Your task to perform on an android device: Open Google Chrome Image 0: 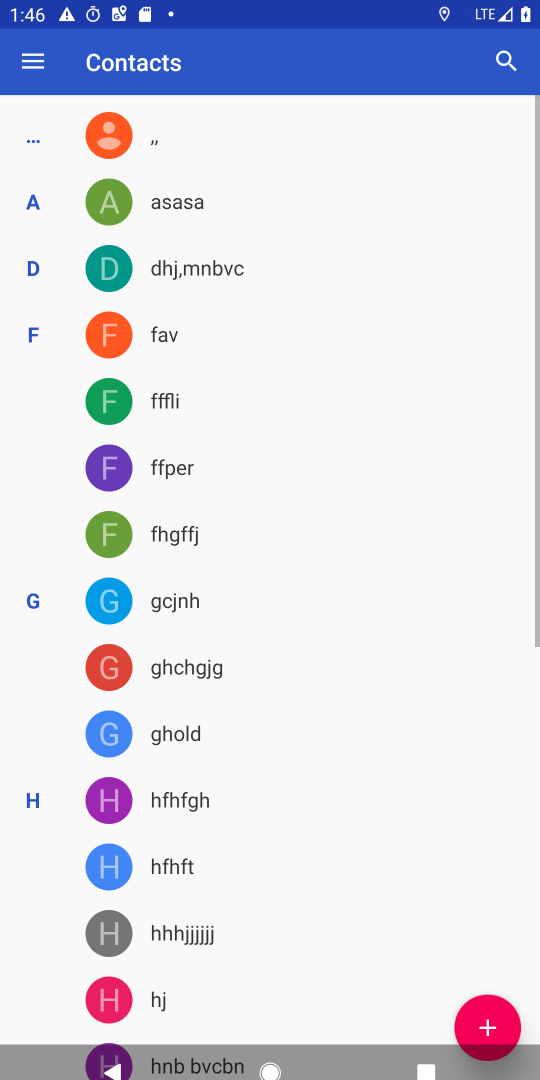
Step 0: press home button
Your task to perform on an android device: Open Google Chrome Image 1: 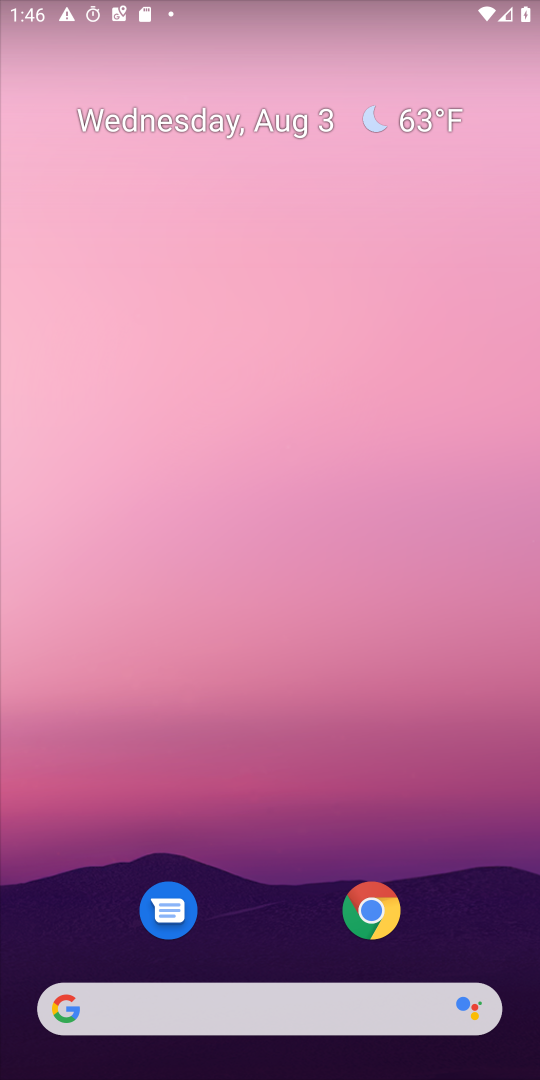
Step 1: drag from (328, 441) to (199, 353)
Your task to perform on an android device: Open Google Chrome Image 2: 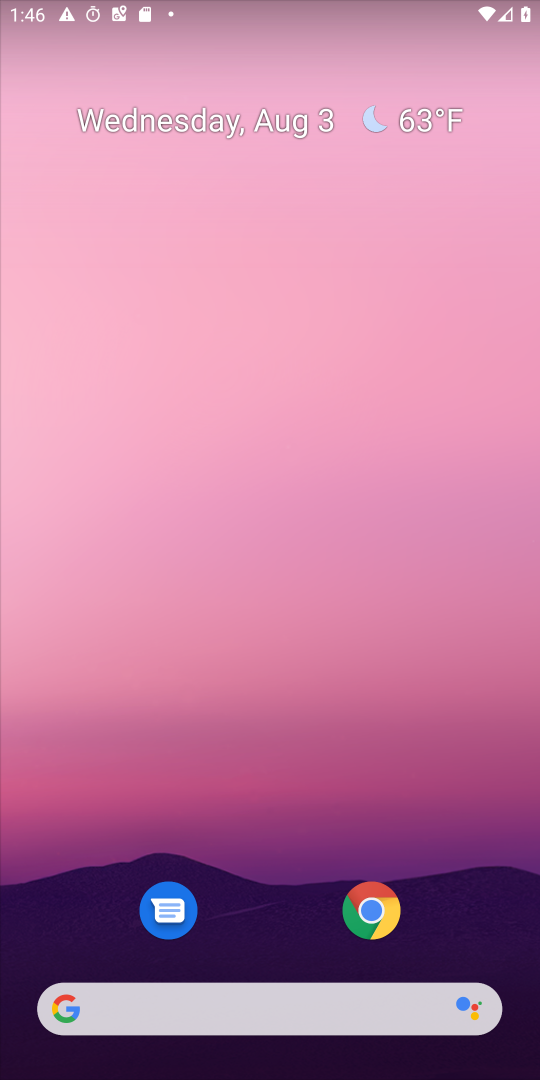
Step 2: drag from (301, 521) to (352, 120)
Your task to perform on an android device: Open Google Chrome Image 3: 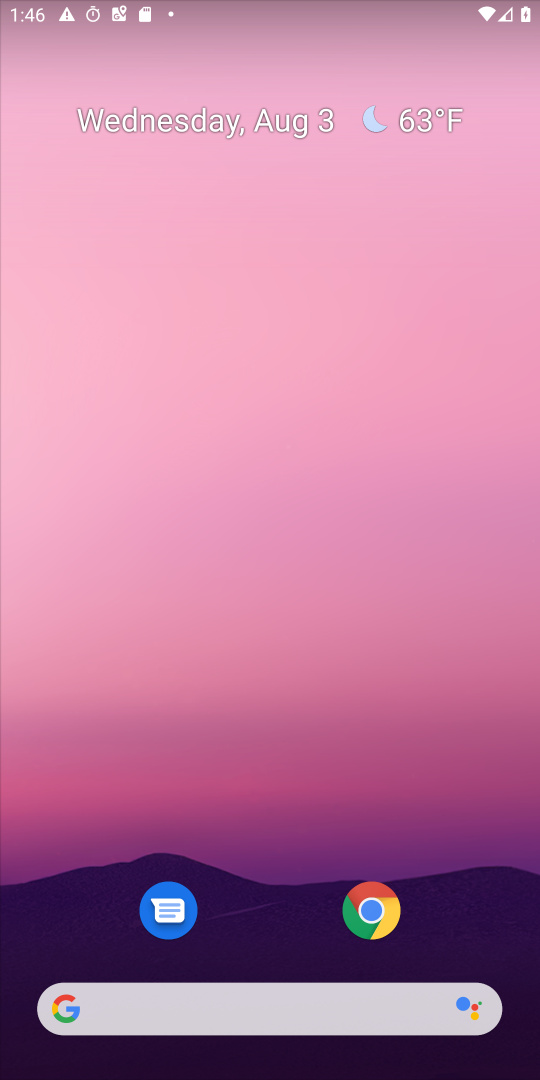
Step 3: drag from (277, 999) to (357, 0)
Your task to perform on an android device: Open Google Chrome Image 4: 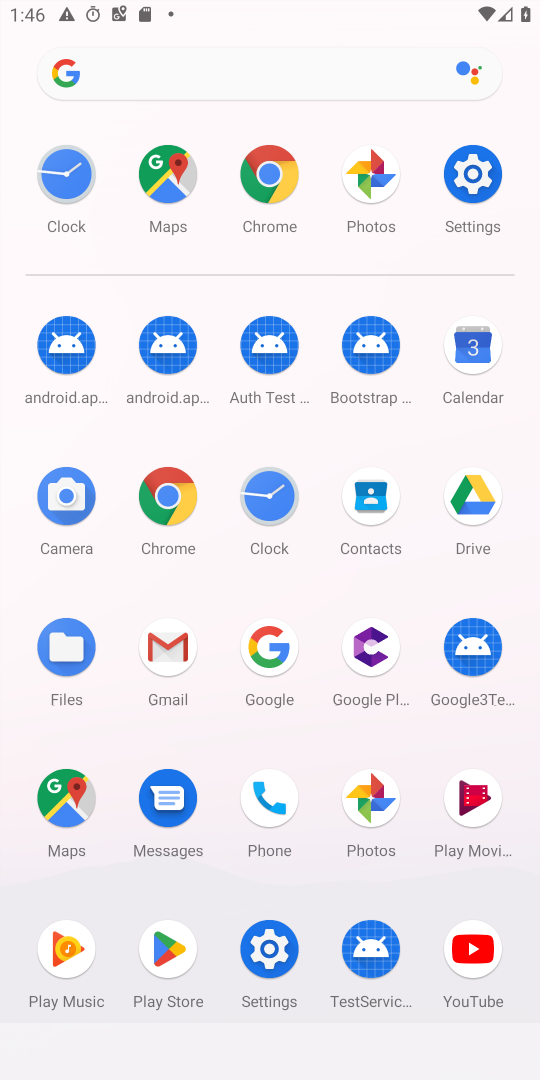
Step 4: click (178, 501)
Your task to perform on an android device: Open Google Chrome Image 5: 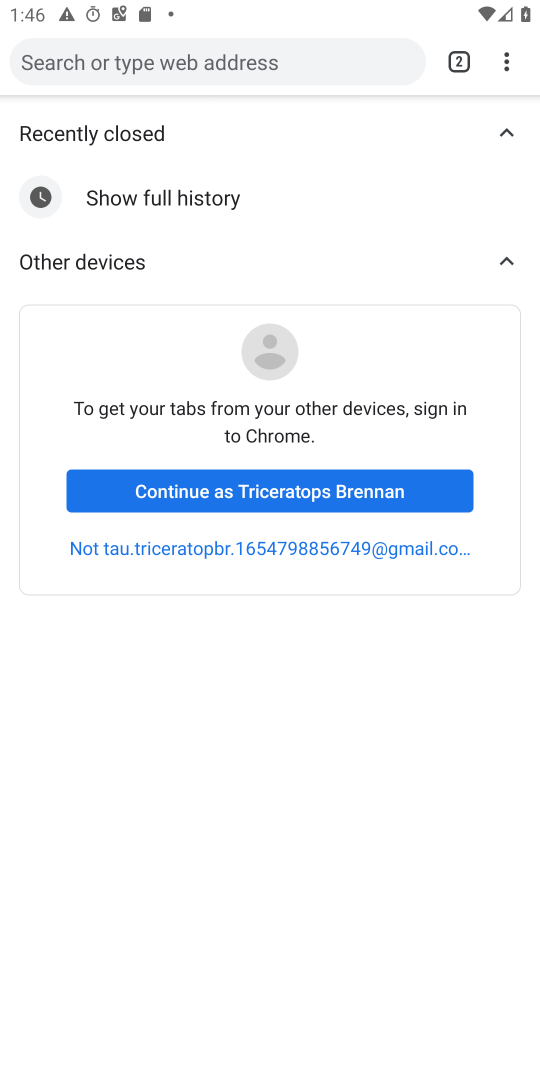
Step 5: task complete